Your task to perform on an android device: Open CNN.com Image 0: 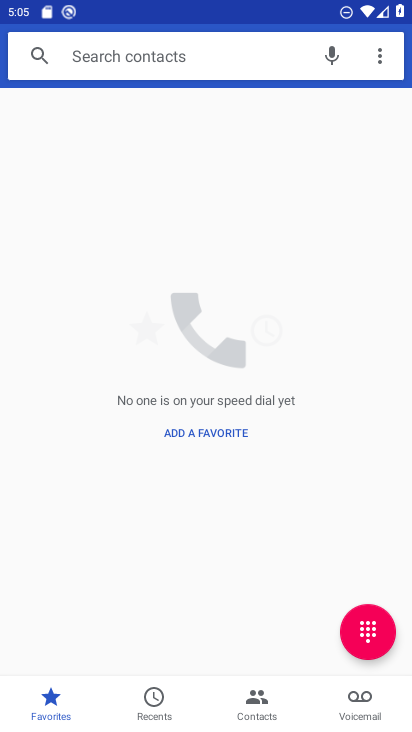
Step 0: press home button
Your task to perform on an android device: Open CNN.com Image 1: 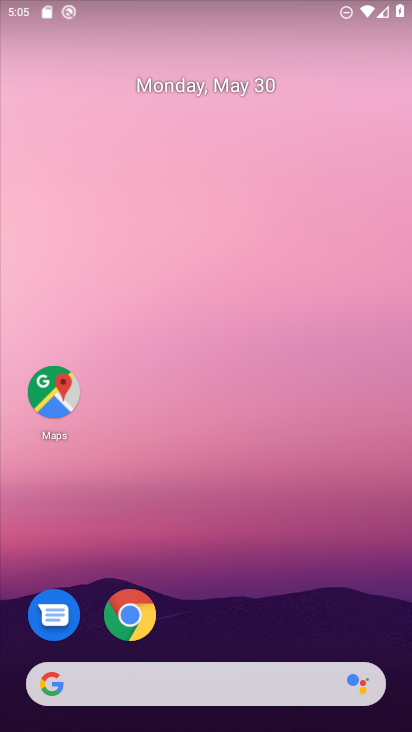
Step 1: click (230, 686)
Your task to perform on an android device: Open CNN.com Image 2: 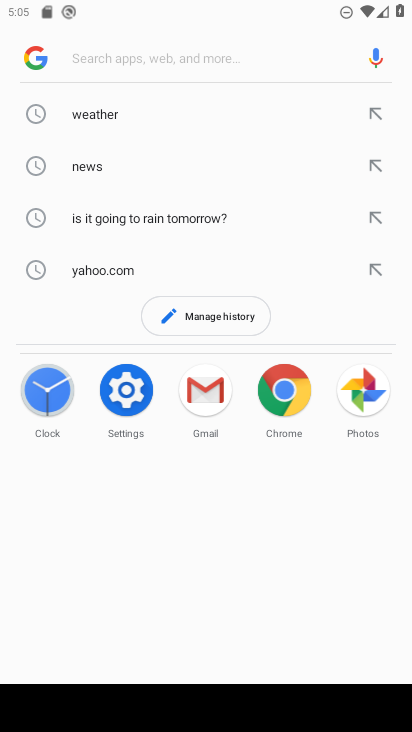
Step 2: type "cnn"
Your task to perform on an android device: Open CNN.com Image 3: 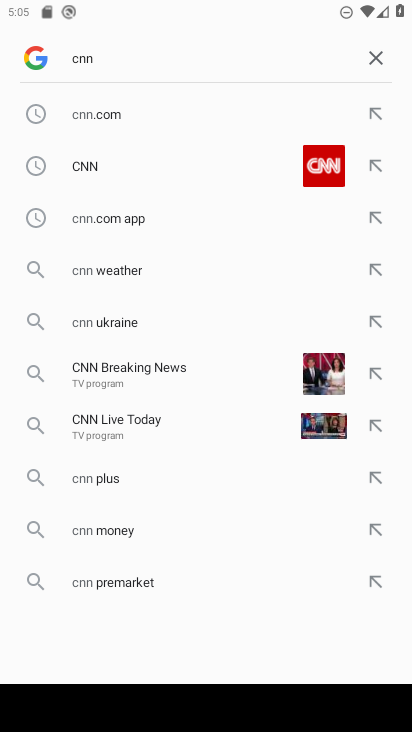
Step 3: click (182, 108)
Your task to perform on an android device: Open CNN.com Image 4: 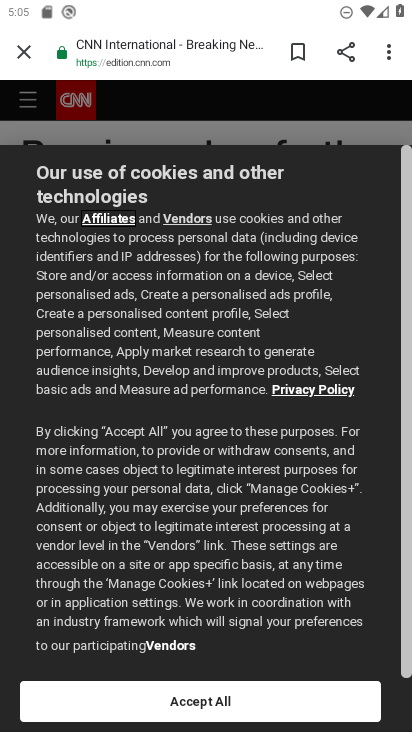
Step 4: task complete